Your task to perform on an android device: Open CNN.com Image 0: 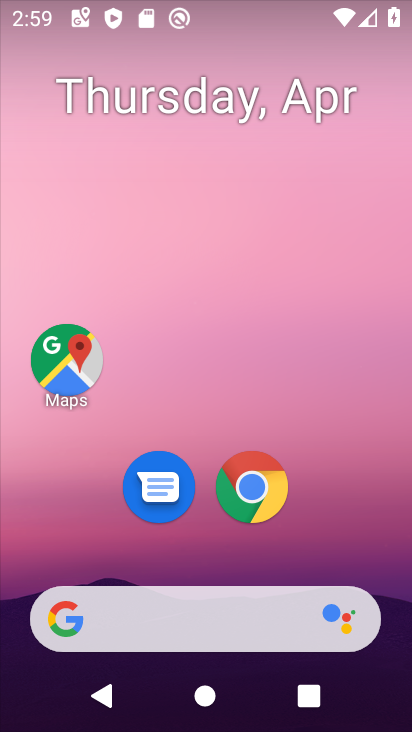
Step 0: drag from (178, 520) to (241, 154)
Your task to perform on an android device: Open CNN.com Image 1: 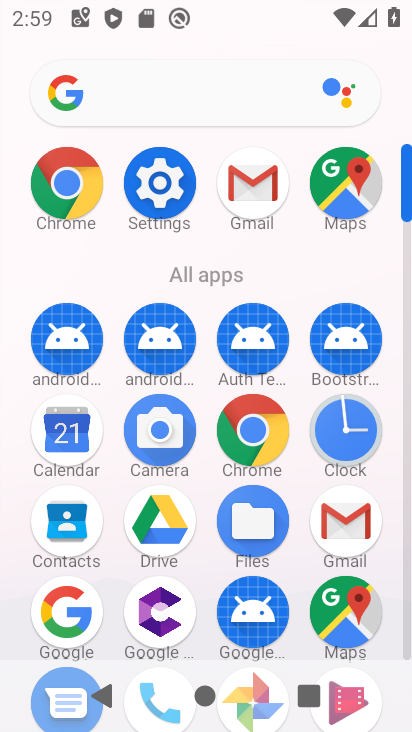
Step 1: click (74, 185)
Your task to perform on an android device: Open CNN.com Image 2: 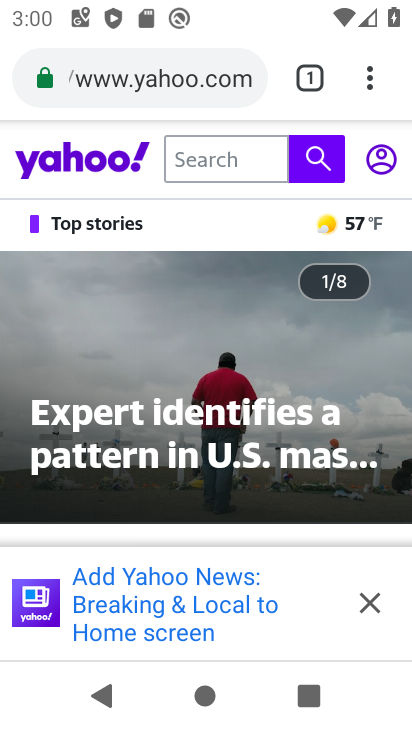
Step 2: press home button
Your task to perform on an android device: Open CNN.com Image 3: 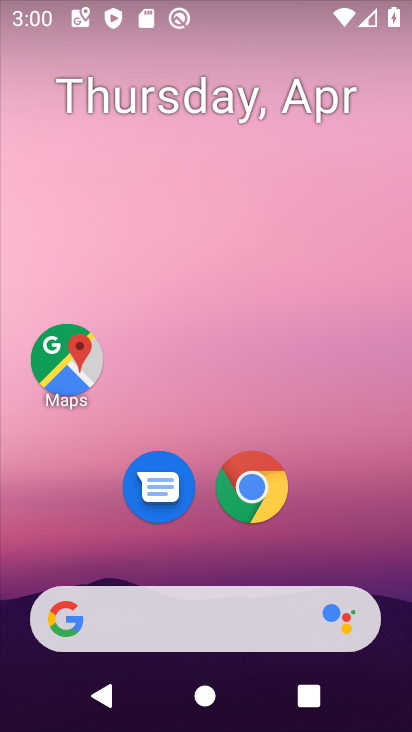
Step 3: click (251, 513)
Your task to perform on an android device: Open CNN.com Image 4: 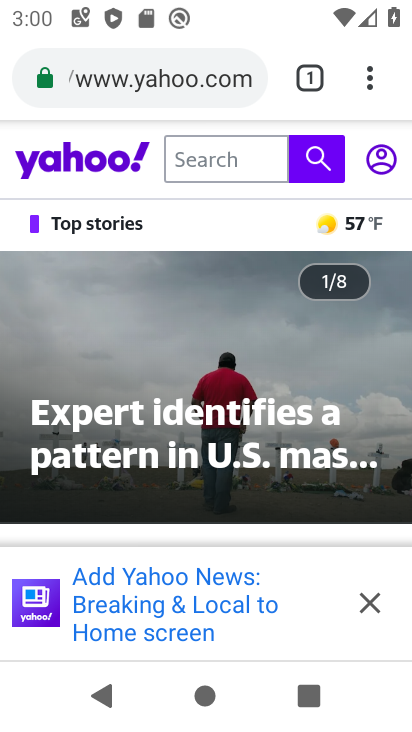
Step 4: click (202, 80)
Your task to perform on an android device: Open CNN.com Image 5: 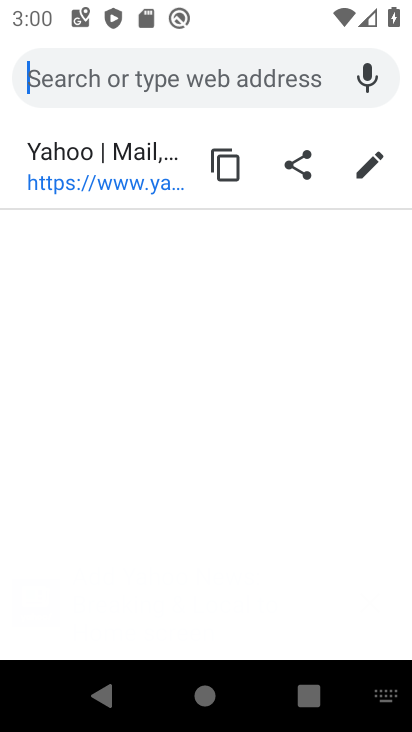
Step 5: type "cnn.com"
Your task to perform on an android device: Open CNN.com Image 6: 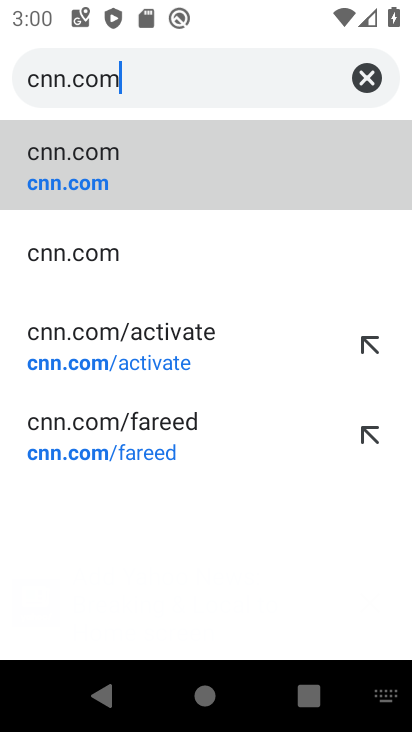
Step 6: click (208, 153)
Your task to perform on an android device: Open CNN.com Image 7: 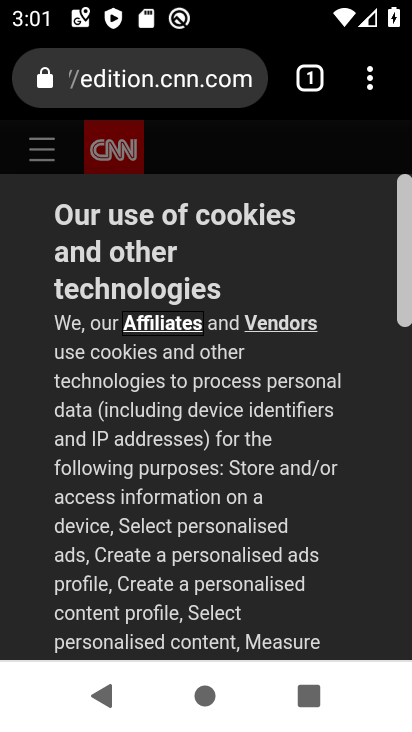
Step 7: task complete